Your task to perform on an android device: Open CNN.com Image 0: 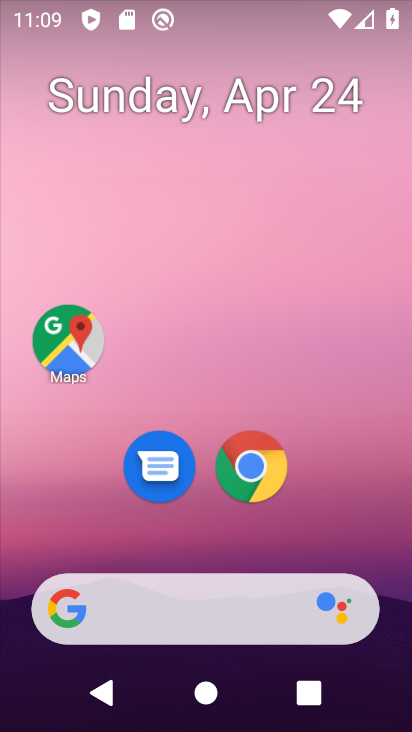
Step 0: click (272, 475)
Your task to perform on an android device: Open CNN.com Image 1: 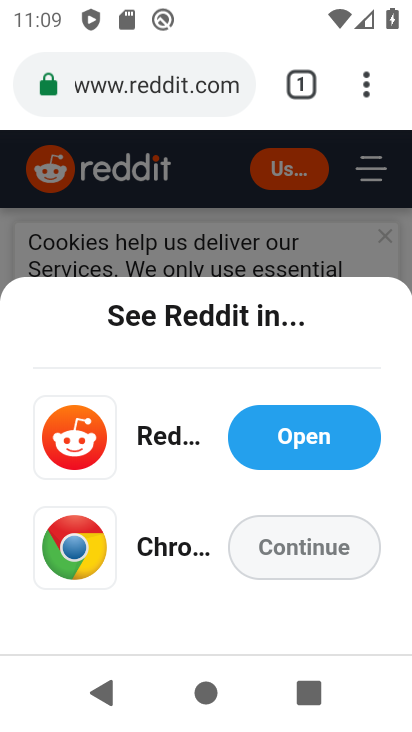
Step 1: click (309, 86)
Your task to perform on an android device: Open CNN.com Image 2: 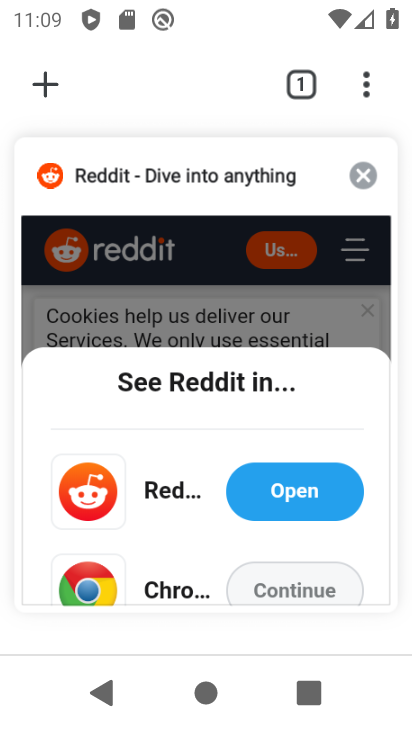
Step 2: click (39, 90)
Your task to perform on an android device: Open CNN.com Image 3: 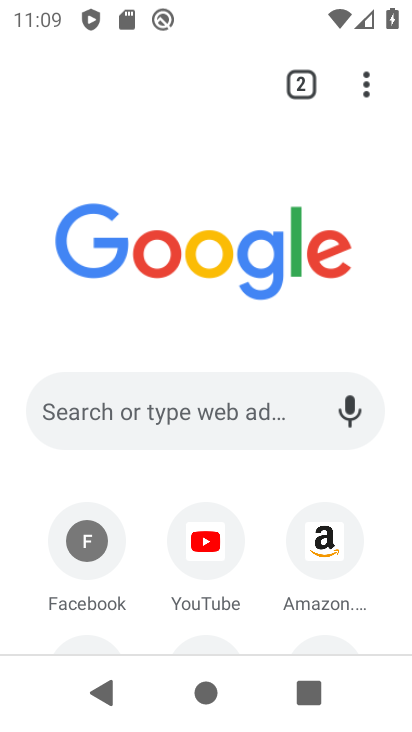
Step 3: click (215, 395)
Your task to perform on an android device: Open CNN.com Image 4: 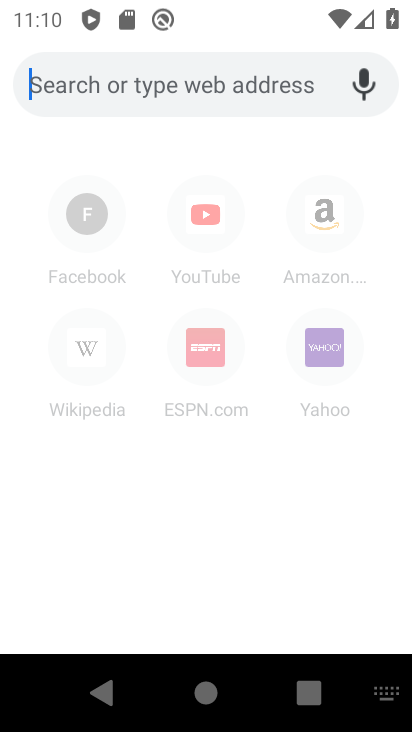
Step 4: type "cnn"
Your task to perform on an android device: Open CNN.com Image 5: 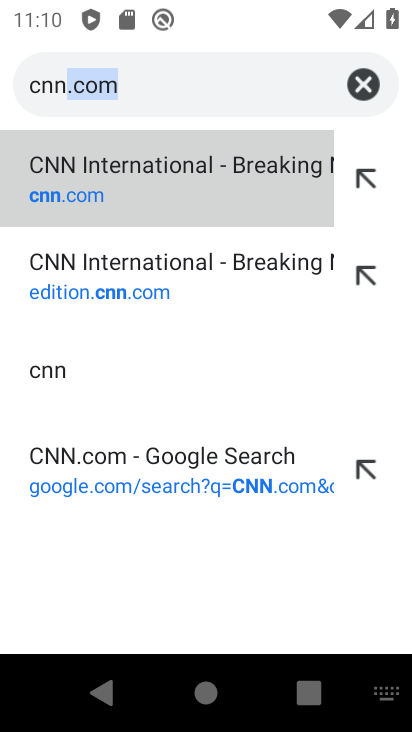
Step 5: click (79, 188)
Your task to perform on an android device: Open CNN.com Image 6: 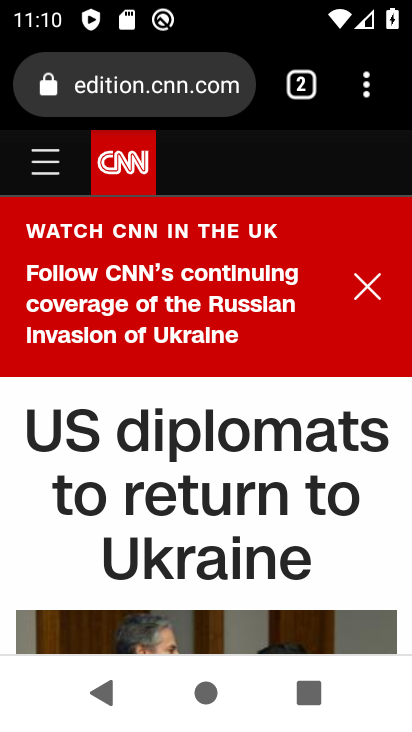
Step 6: task complete